Your task to perform on an android device: Go to display settings Image 0: 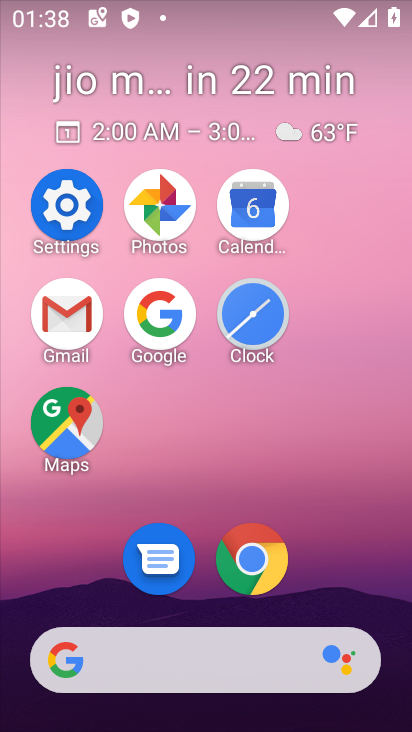
Step 0: click (85, 219)
Your task to perform on an android device: Go to display settings Image 1: 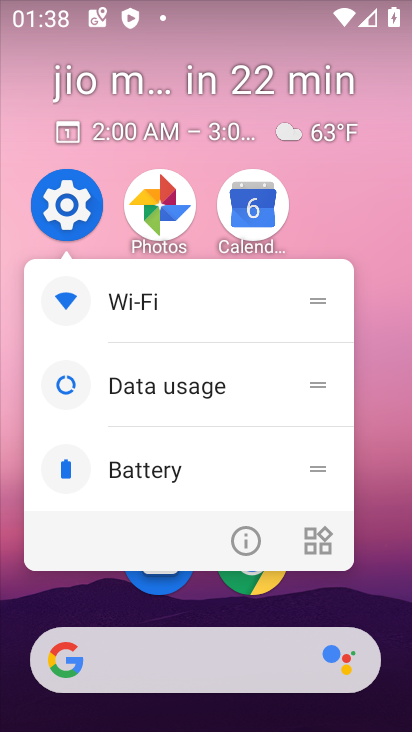
Step 1: click (88, 213)
Your task to perform on an android device: Go to display settings Image 2: 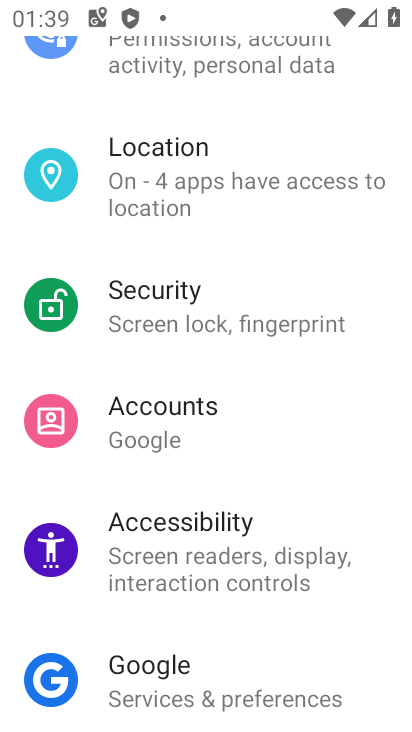
Step 2: drag from (273, 151) to (274, 604)
Your task to perform on an android device: Go to display settings Image 3: 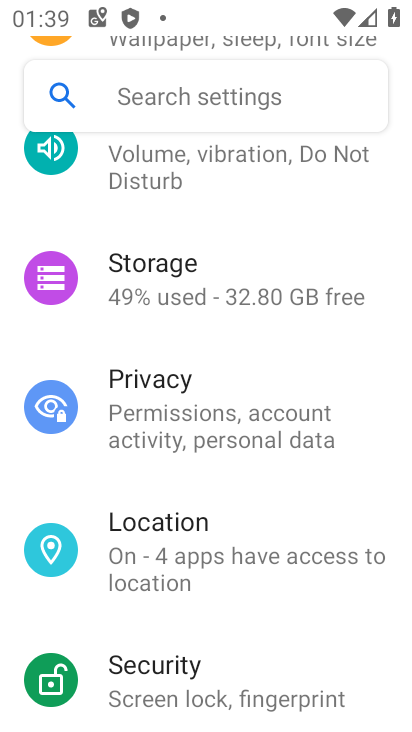
Step 3: drag from (310, 247) to (303, 487)
Your task to perform on an android device: Go to display settings Image 4: 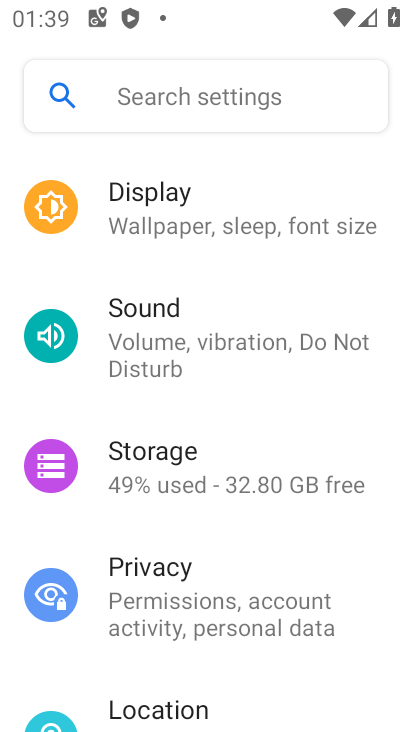
Step 4: click (264, 199)
Your task to perform on an android device: Go to display settings Image 5: 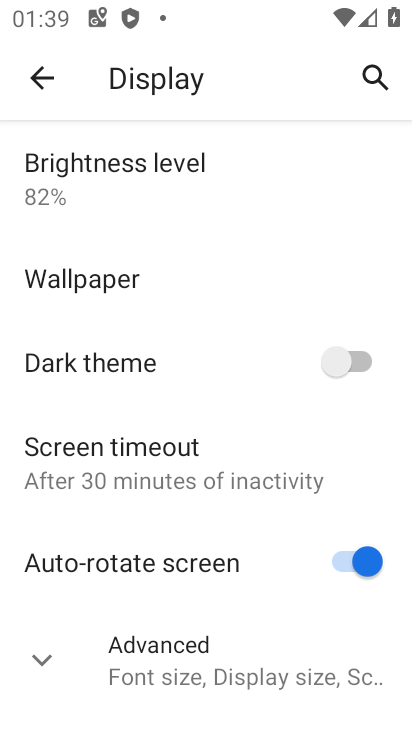
Step 5: task complete